Your task to perform on an android device: turn pop-ups off in chrome Image 0: 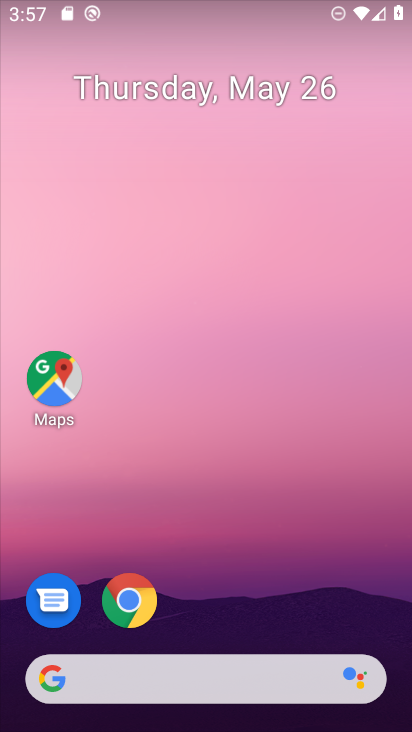
Step 0: drag from (229, 557) to (178, 70)
Your task to perform on an android device: turn pop-ups off in chrome Image 1: 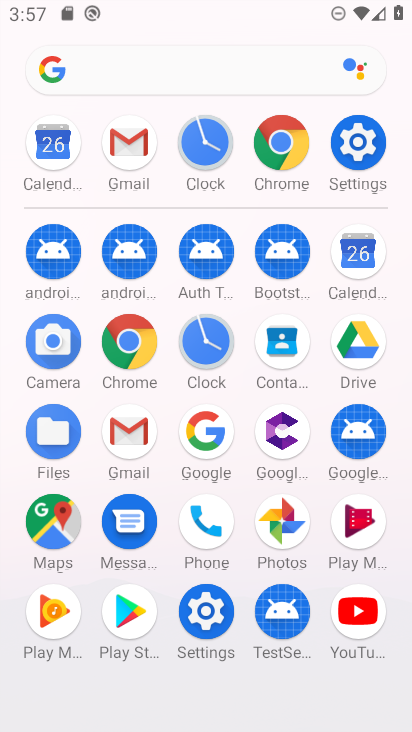
Step 1: drag from (10, 560) to (21, 239)
Your task to perform on an android device: turn pop-ups off in chrome Image 2: 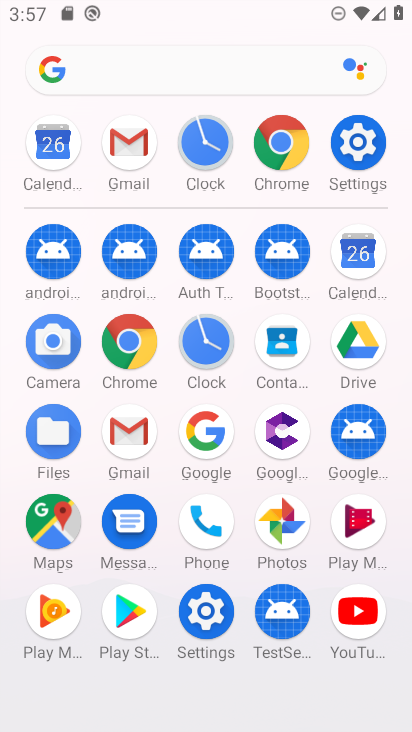
Step 2: click (126, 339)
Your task to perform on an android device: turn pop-ups off in chrome Image 3: 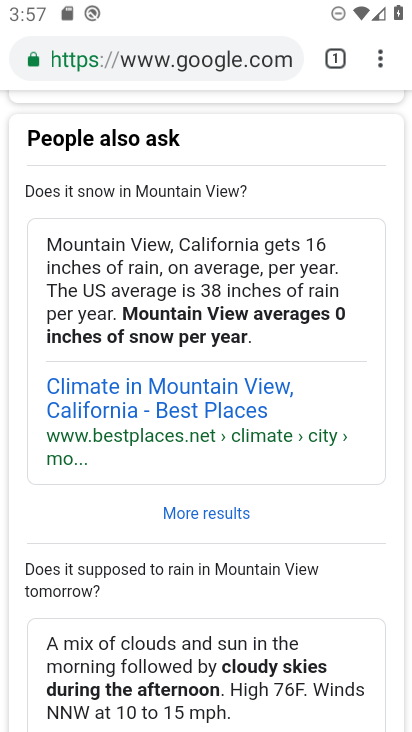
Step 3: drag from (377, 60) to (193, 610)
Your task to perform on an android device: turn pop-ups off in chrome Image 4: 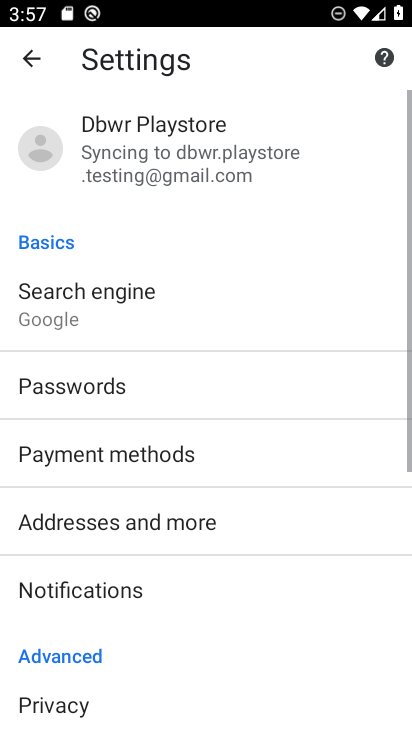
Step 4: drag from (215, 618) to (219, 195)
Your task to perform on an android device: turn pop-ups off in chrome Image 5: 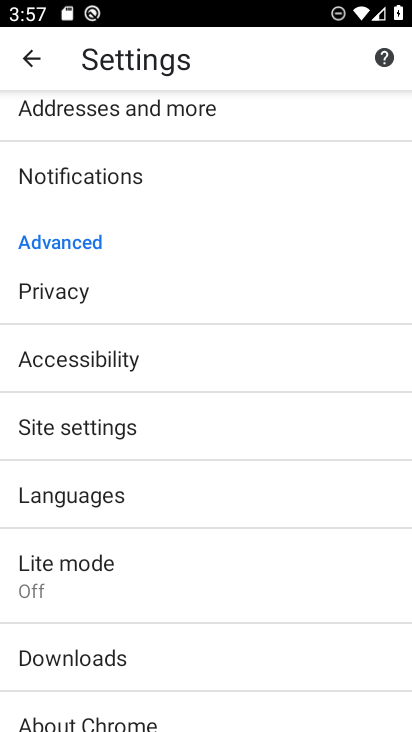
Step 5: click (107, 429)
Your task to perform on an android device: turn pop-ups off in chrome Image 6: 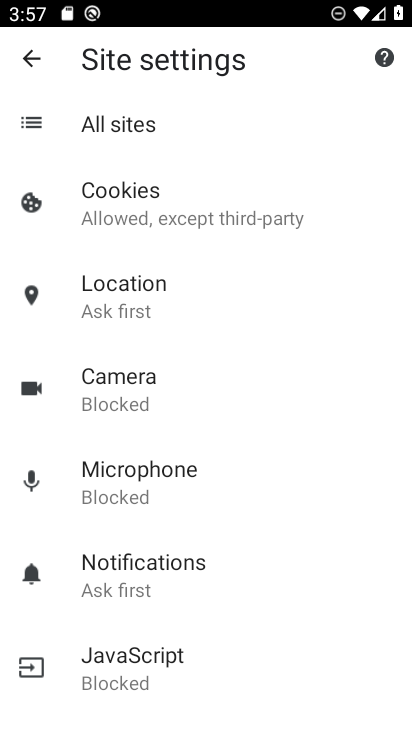
Step 6: drag from (176, 645) to (216, 183)
Your task to perform on an android device: turn pop-ups off in chrome Image 7: 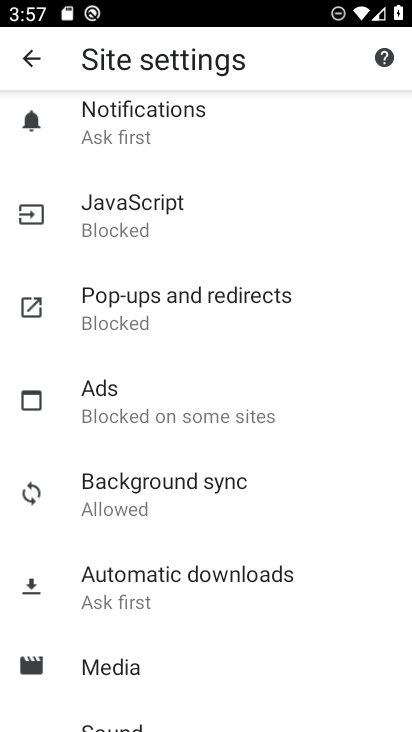
Step 7: click (163, 289)
Your task to perform on an android device: turn pop-ups off in chrome Image 8: 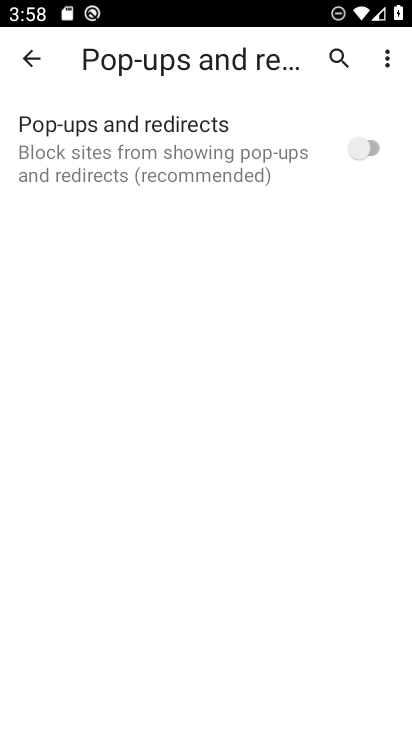
Step 8: task complete